Your task to perform on an android device: change the clock display to show seconds Image 0: 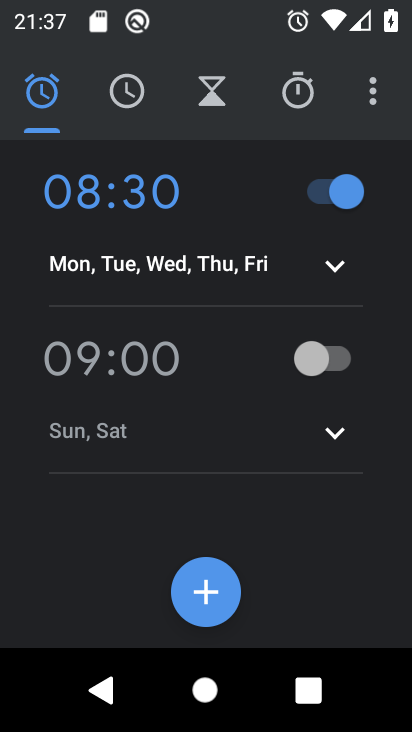
Step 0: press home button
Your task to perform on an android device: change the clock display to show seconds Image 1: 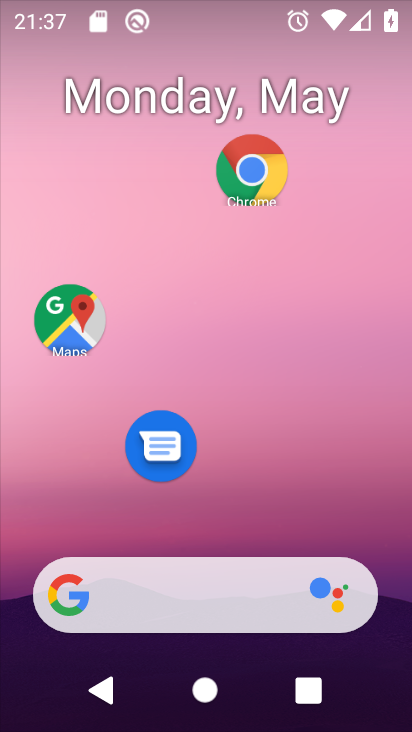
Step 1: drag from (225, 458) to (251, 22)
Your task to perform on an android device: change the clock display to show seconds Image 2: 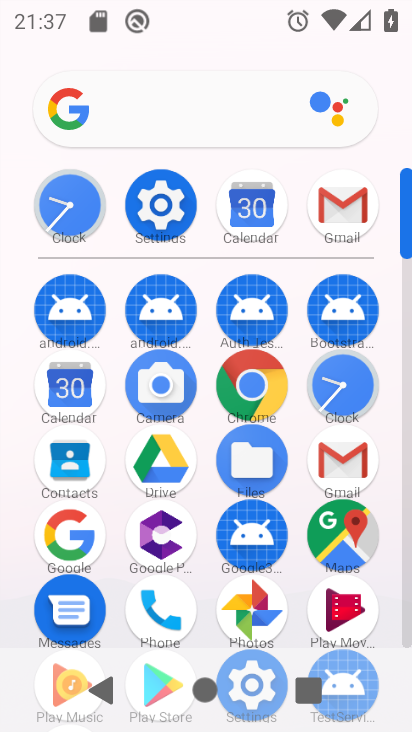
Step 2: click (341, 380)
Your task to perform on an android device: change the clock display to show seconds Image 3: 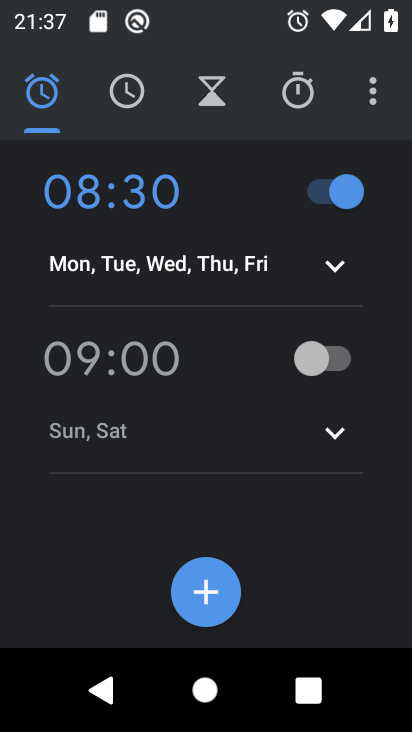
Step 3: click (364, 91)
Your task to perform on an android device: change the clock display to show seconds Image 4: 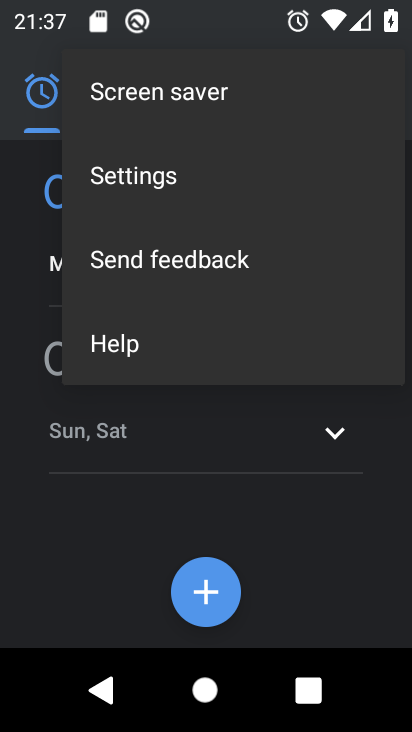
Step 4: click (181, 177)
Your task to perform on an android device: change the clock display to show seconds Image 5: 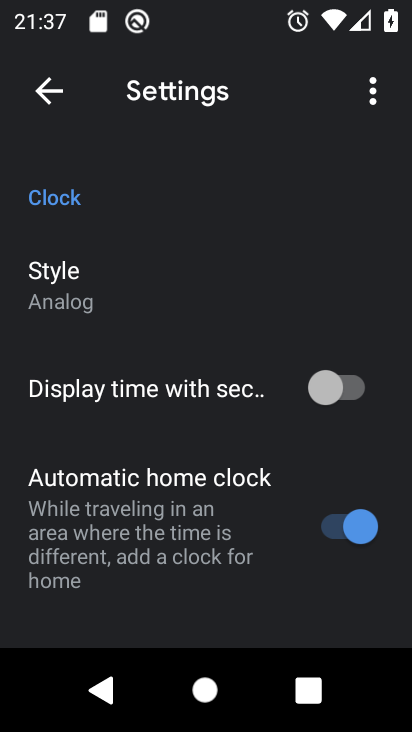
Step 5: click (341, 386)
Your task to perform on an android device: change the clock display to show seconds Image 6: 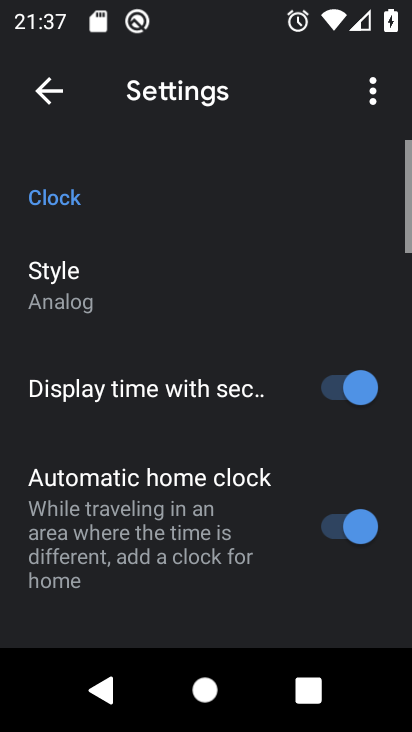
Step 6: task complete